Your task to perform on an android device: Open settings on Google Maps Image 0: 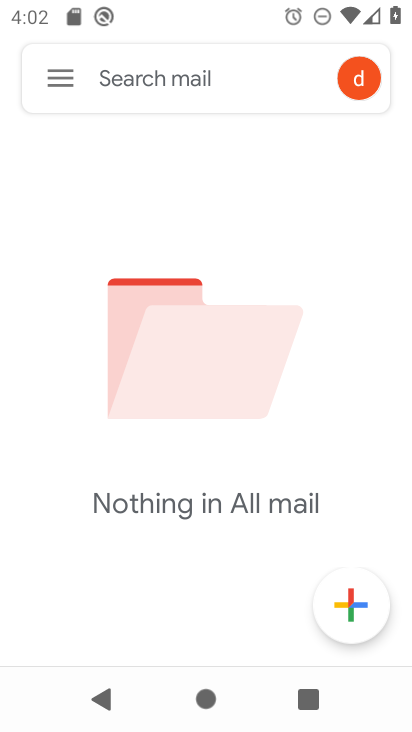
Step 0: press home button
Your task to perform on an android device: Open settings on Google Maps Image 1: 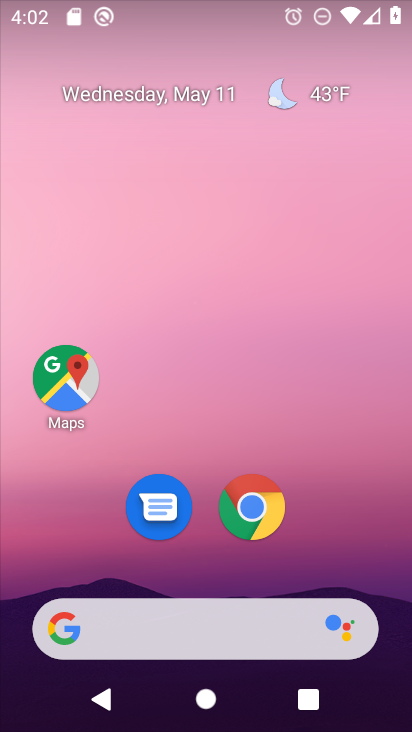
Step 1: click (67, 378)
Your task to perform on an android device: Open settings on Google Maps Image 2: 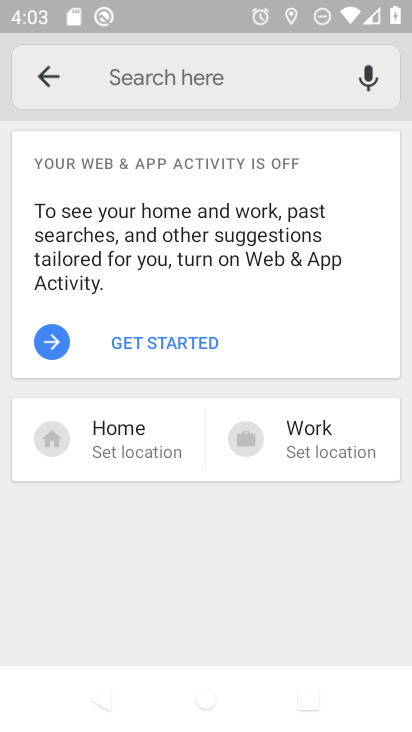
Step 2: press back button
Your task to perform on an android device: Open settings on Google Maps Image 3: 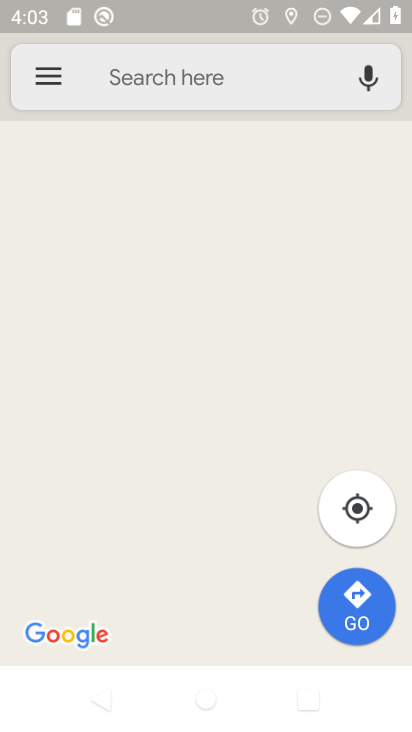
Step 3: click (44, 71)
Your task to perform on an android device: Open settings on Google Maps Image 4: 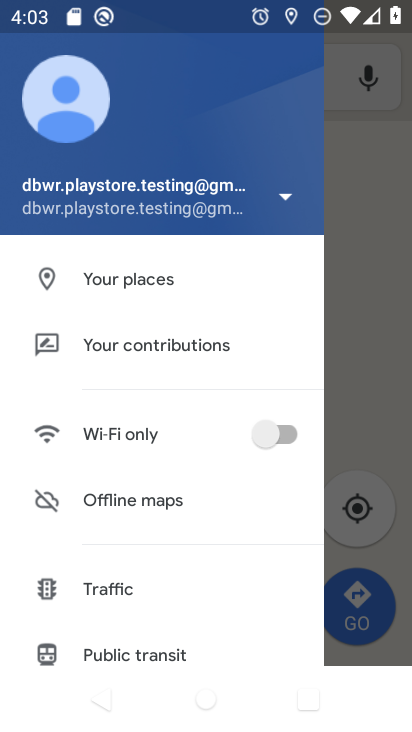
Step 4: drag from (196, 623) to (242, 133)
Your task to perform on an android device: Open settings on Google Maps Image 5: 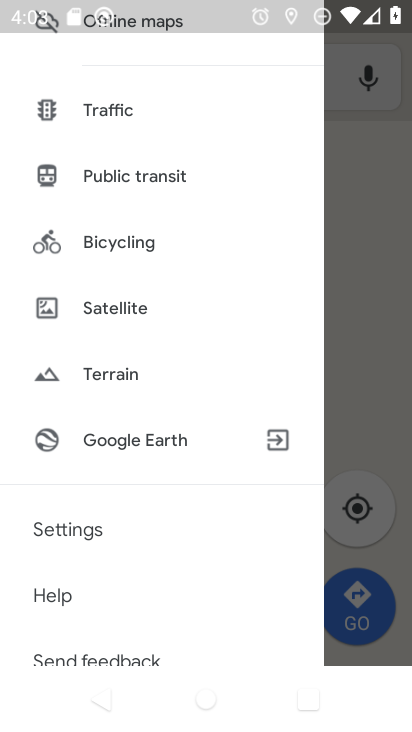
Step 5: drag from (207, 573) to (205, 175)
Your task to perform on an android device: Open settings on Google Maps Image 6: 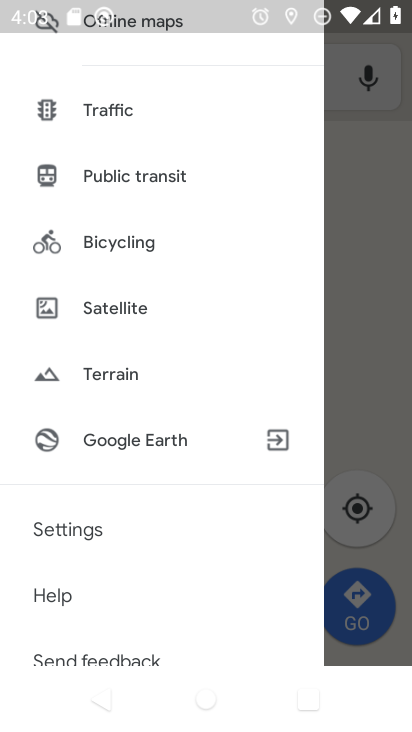
Step 6: click (81, 522)
Your task to perform on an android device: Open settings on Google Maps Image 7: 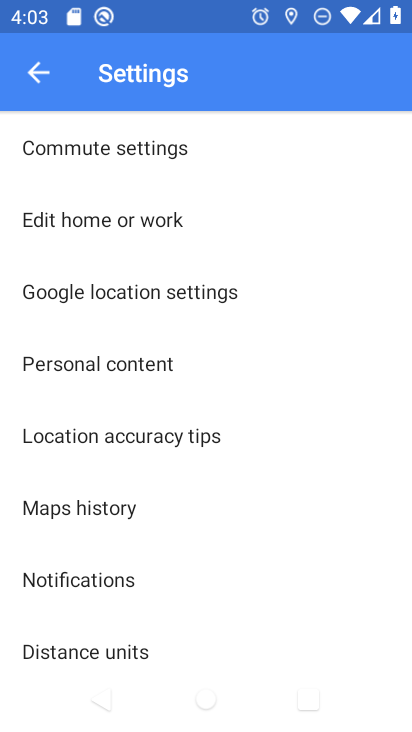
Step 7: task complete